Your task to perform on an android device: Do I have any events this weekend? Image 0: 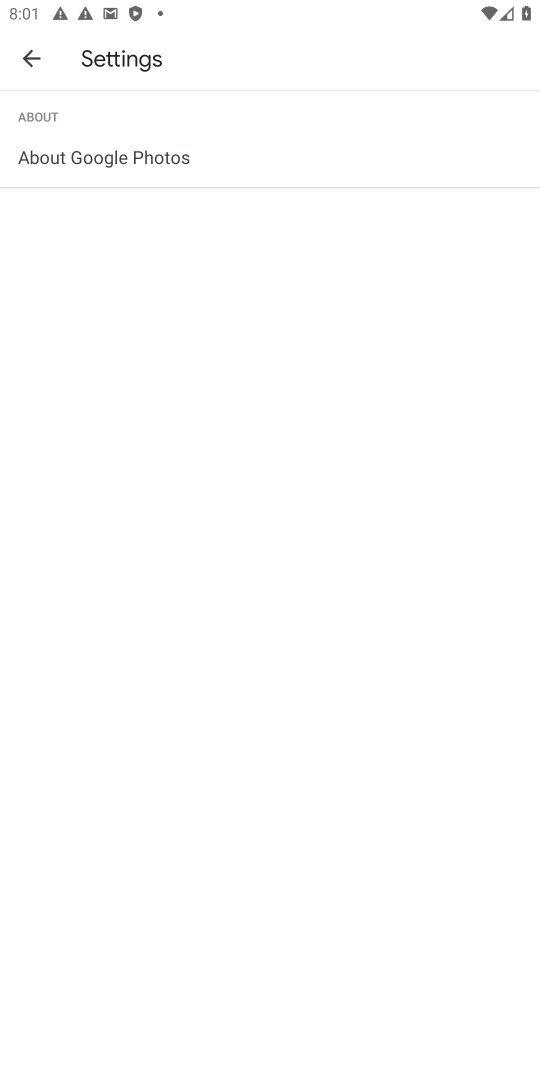
Step 0: press home button
Your task to perform on an android device: Do I have any events this weekend? Image 1: 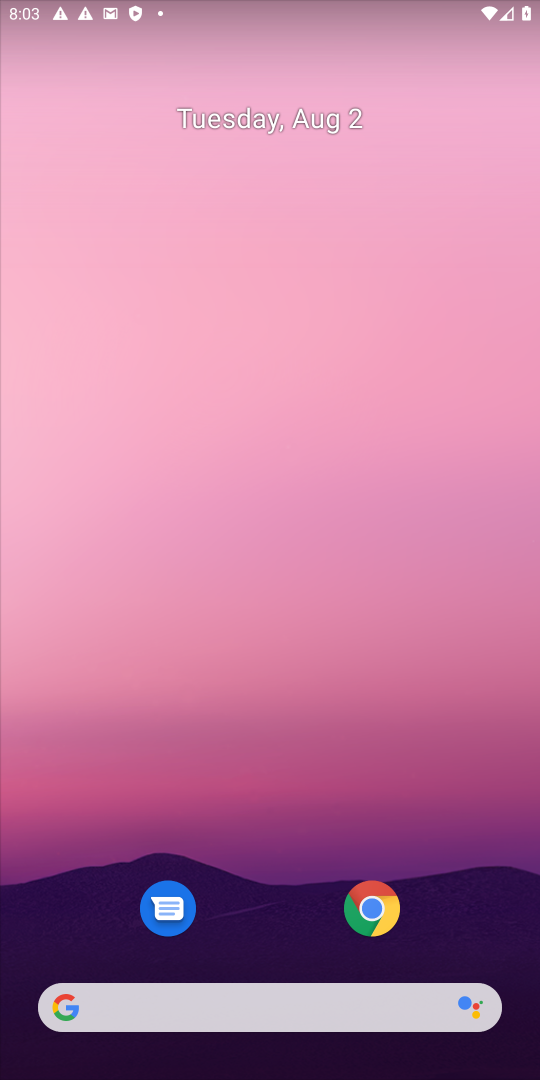
Step 1: drag from (210, 990) to (501, 1011)
Your task to perform on an android device: Do I have any events this weekend? Image 2: 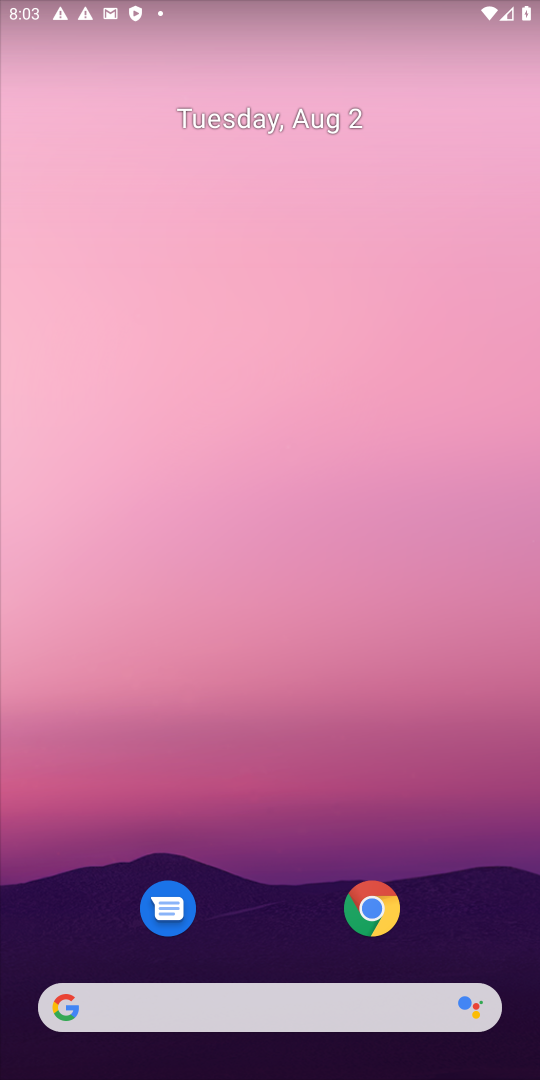
Step 2: drag from (254, 393) to (475, 20)
Your task to perform on an android device: Do I have any events this weekend? Image 3: 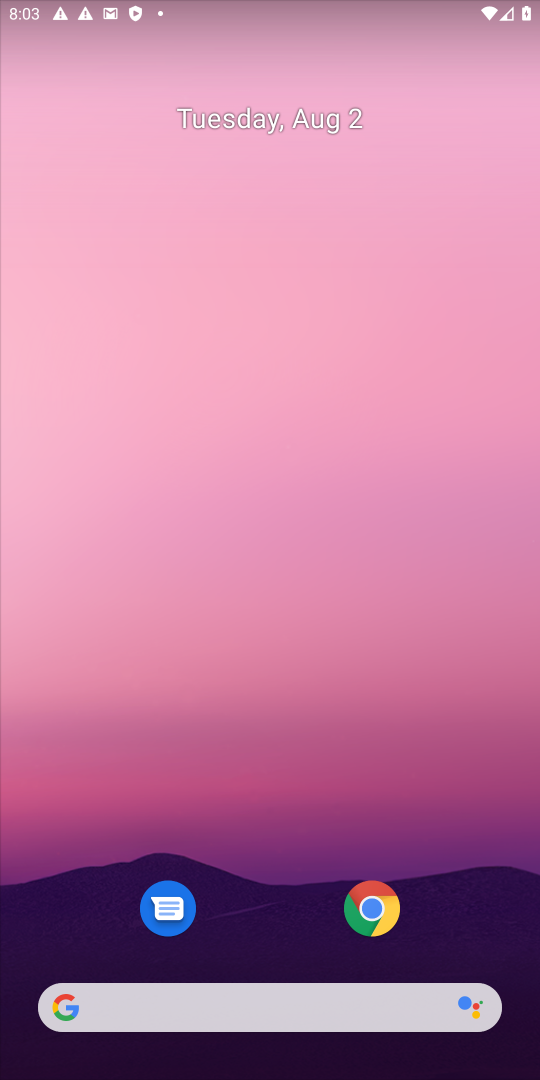
Step 3: drag from (219, 1035) to (429, 625)
Your task to perform on an android device: Do I have any events this weekend? Image 4: 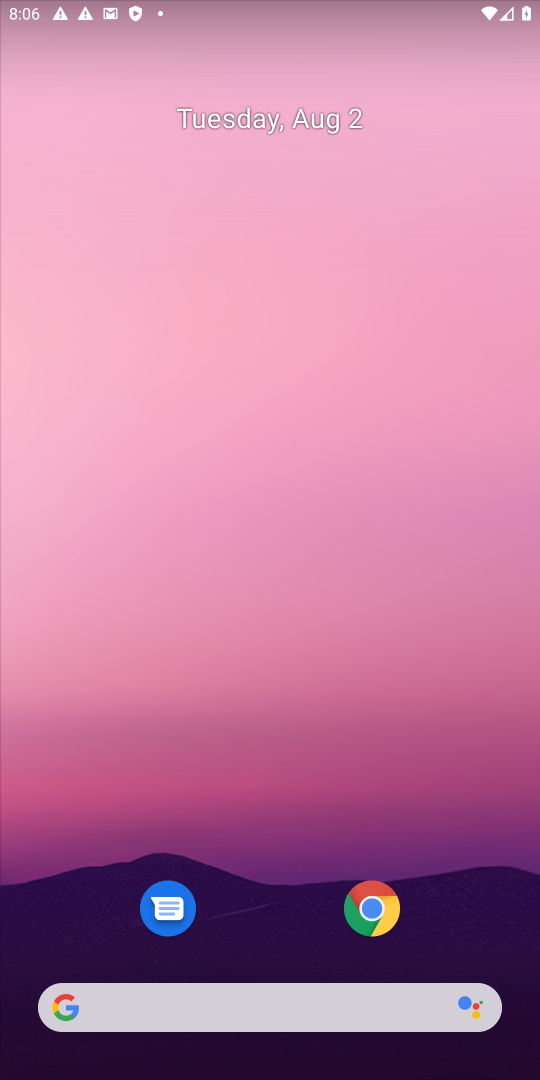
Step 4: drag from (261, 1046) to (327, 518)
Your task to perform on an android device: Do I have any events this weekend? Image 5: 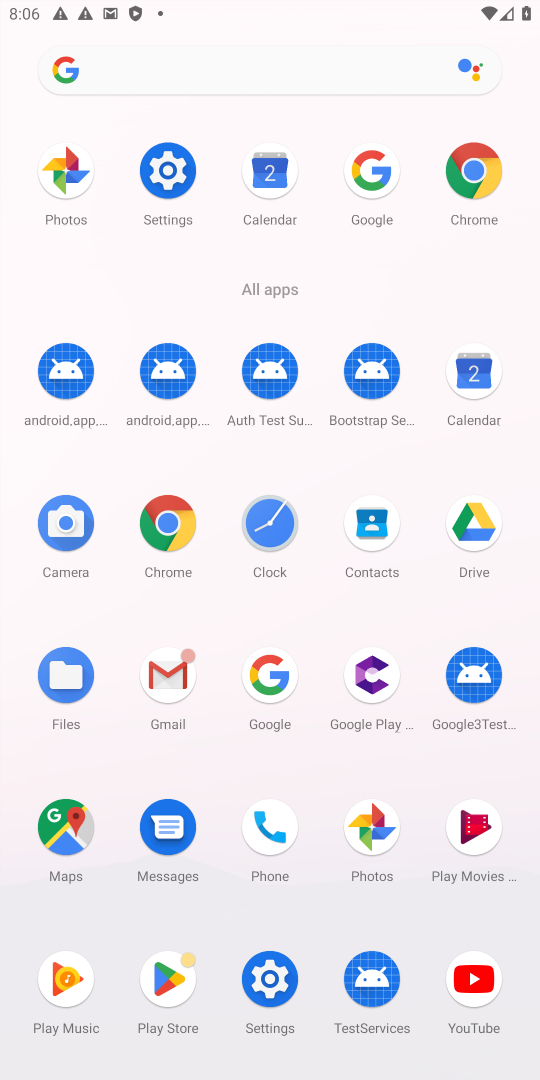
Step 5: click (485, 392)
Your task to perform on an android device: Do I have any events this weekend? Image 6: 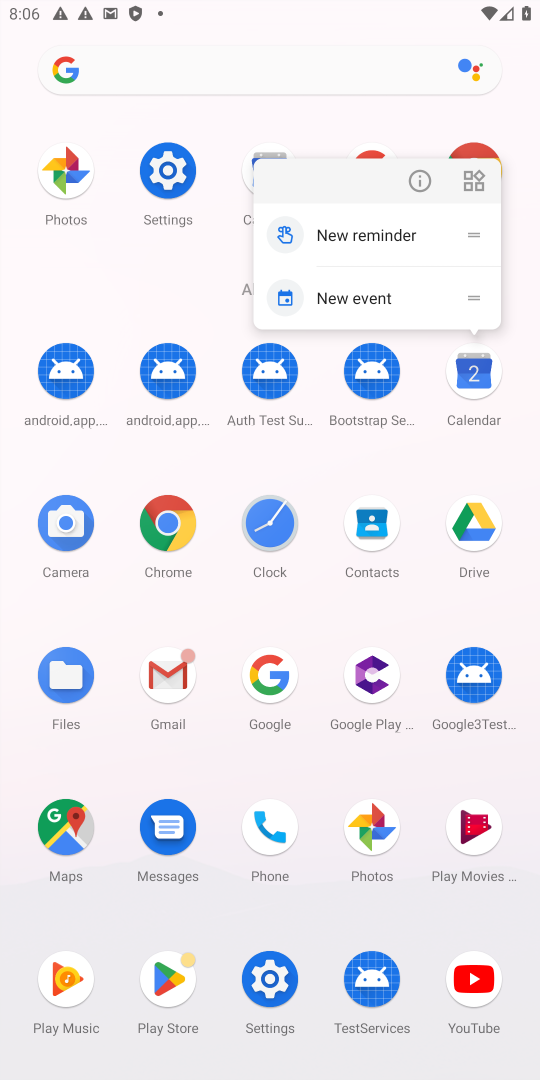
Step 6: click (495, 376)
Your task to perform on an android device: Do I have any events this weekend? Image 7: 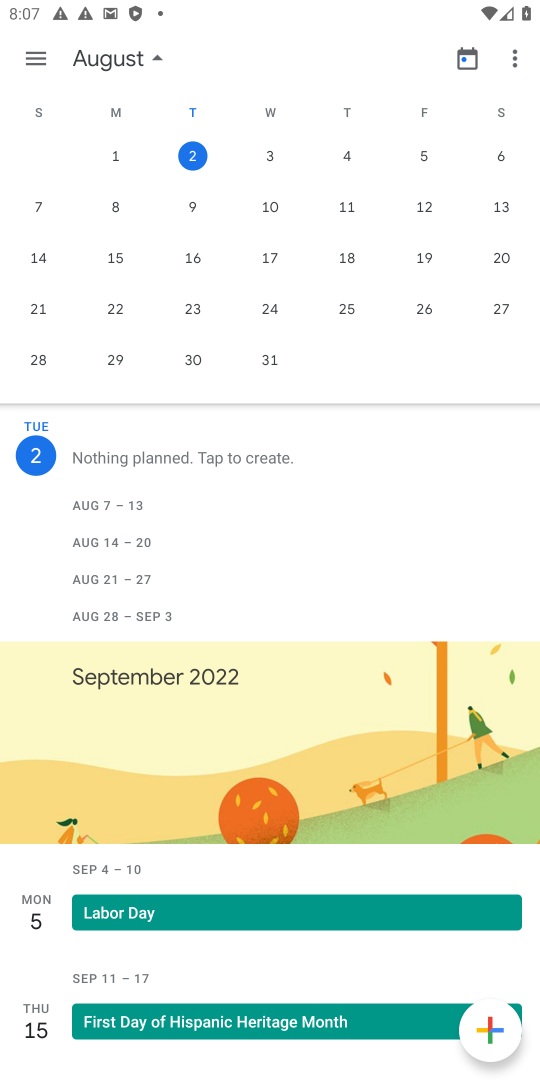
Step 7: click (500, 160)
Your task to perform on an android device: Do I have any events this weekend? Image 8: 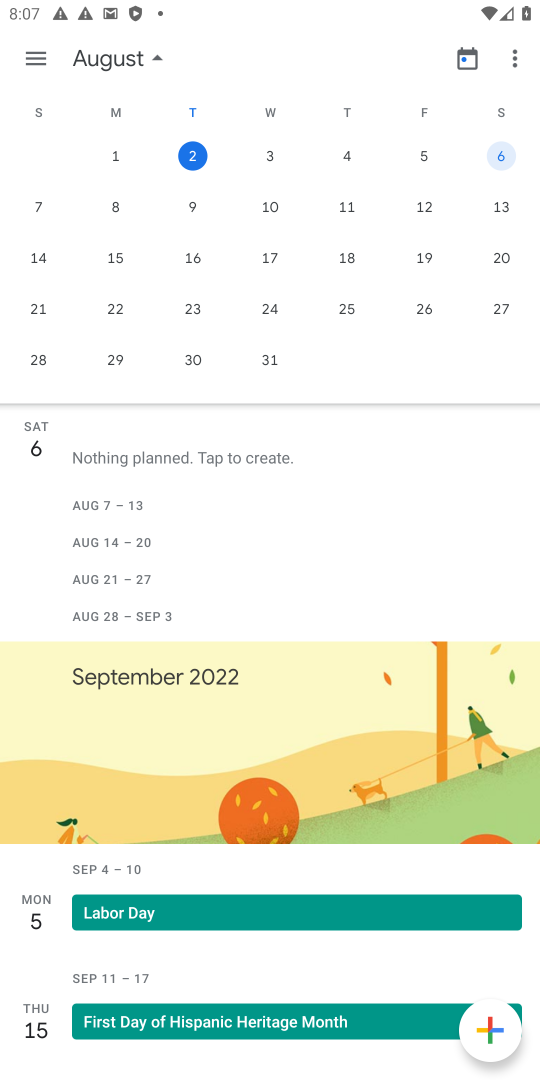
Step 8: task complete